Your task to perform on an android device: What's the weather today? Image 0: 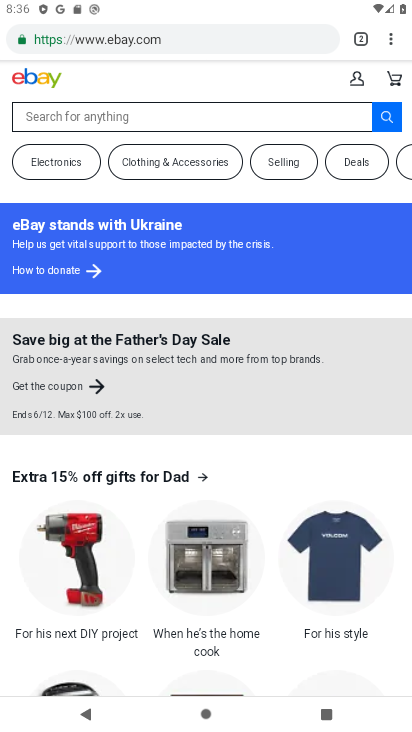
Step 0: press home button
Your task to perform on an android device: What's the weather today? Image 1: 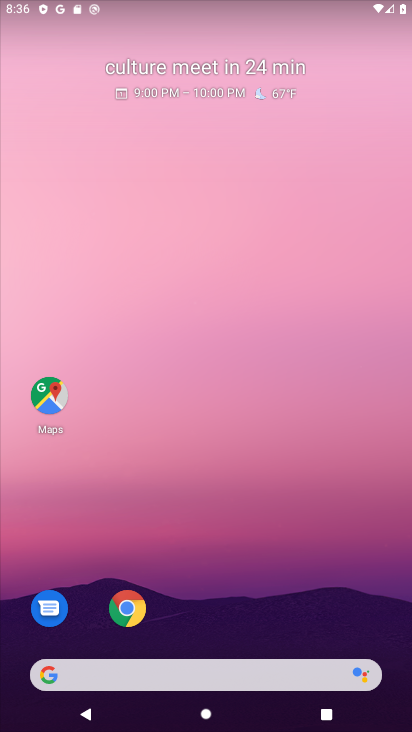
Step 1: click (184, 675)
Your task to perform on an android device: What's the weather today? Image 2: 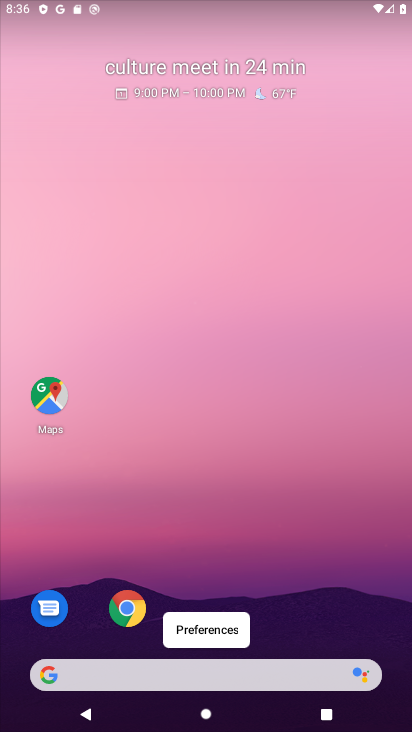
Step 2: click (120, 668)
Your task to perform on an android device: What's the weather today? Image 3: 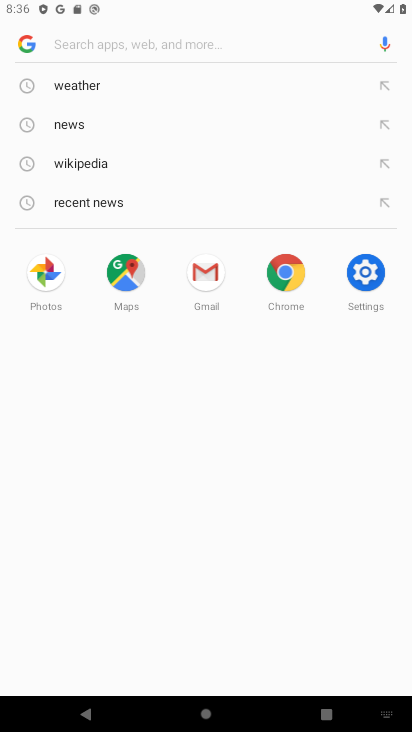
Step 3: click (122, 91)
Your task to perform on an android device: What's the weather today? Image 4: 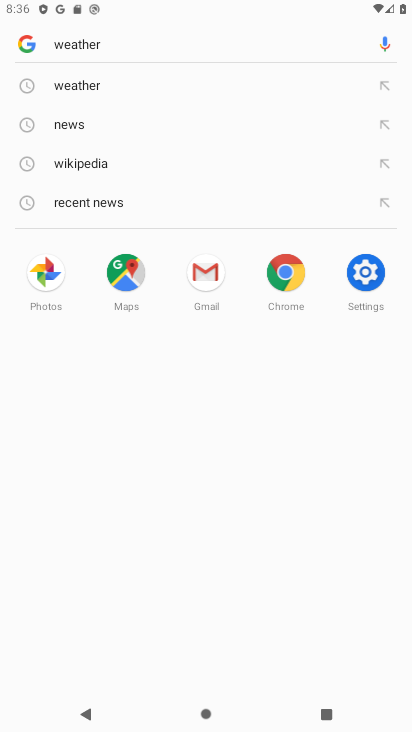
Step 4: task complete